Your task to perform on an android device: Open the phone app and click the voicemail tab. Image 0: 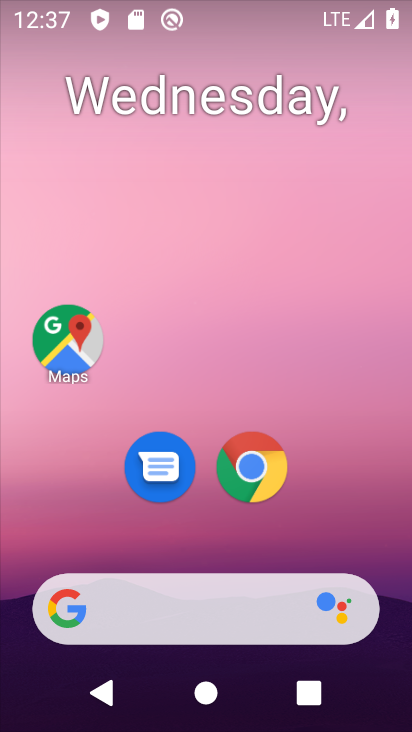
Step 0: drag from (362, 496) to (405, 142)
Your task to perform on an android device: Open the phone app and click the voicemail tab. Image 1: 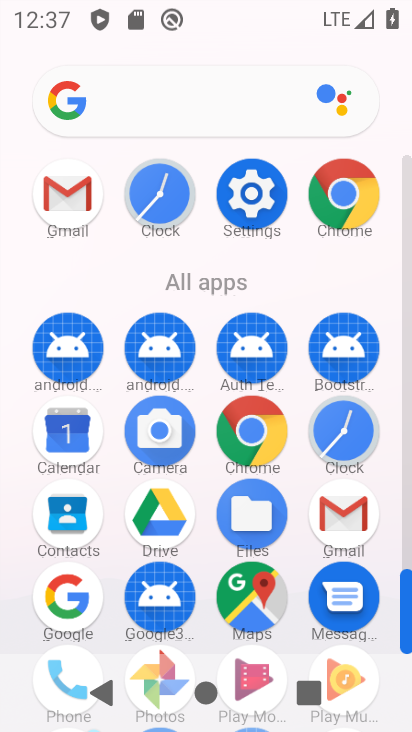
Step 1: drag from (290, 380) to (277, 161)
Your task to perform on an android device: Open the phone app and click the voicemail tab. Image 2: 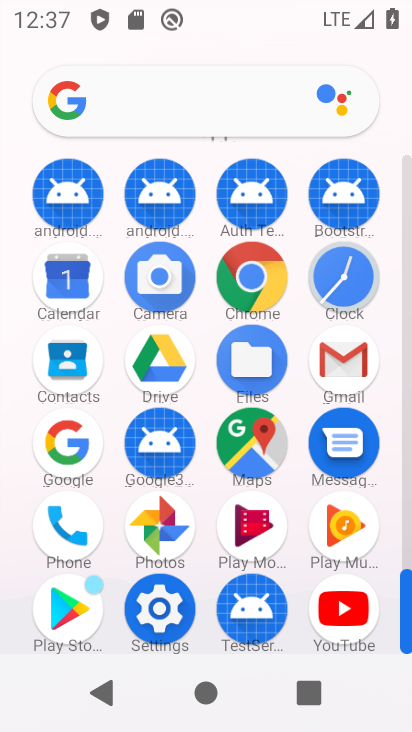
Step 2: click (261, 534)
Your task to perform on an android device: Open the phone app and click the voicemail tab. Image 3: 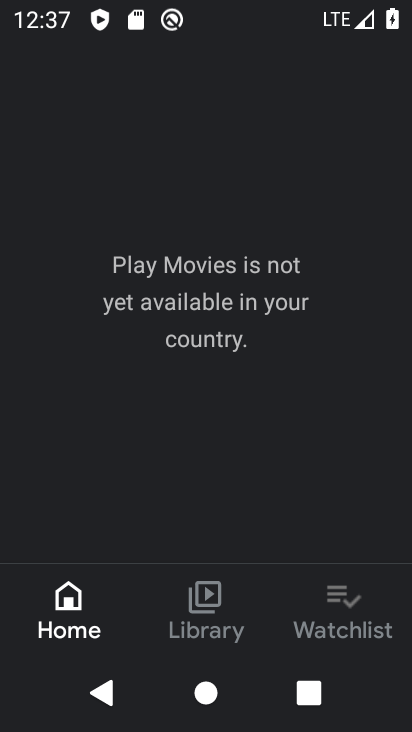
Step 3: click (337, 599)
Your task to perform on an android device: Open the phone app and click the voicemail tab. Image 4: 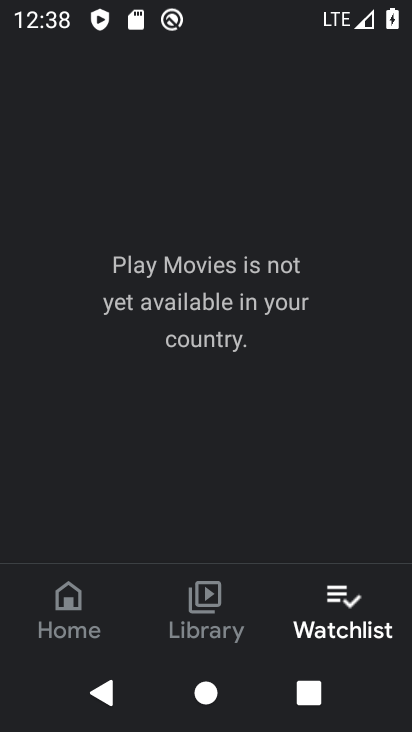
Step 4: task complete